Your task to perform on an android device: make emails show in primary in the gmail app Image 0: 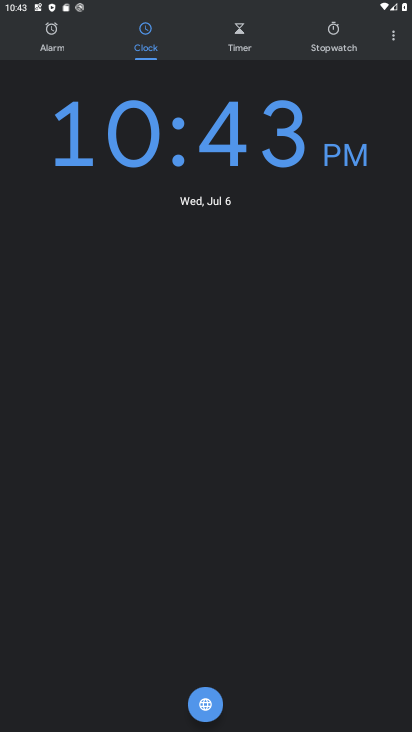
Step 0: press home button
Your task to perform on an android device: make emails show in primary in the gmail app Image 1: 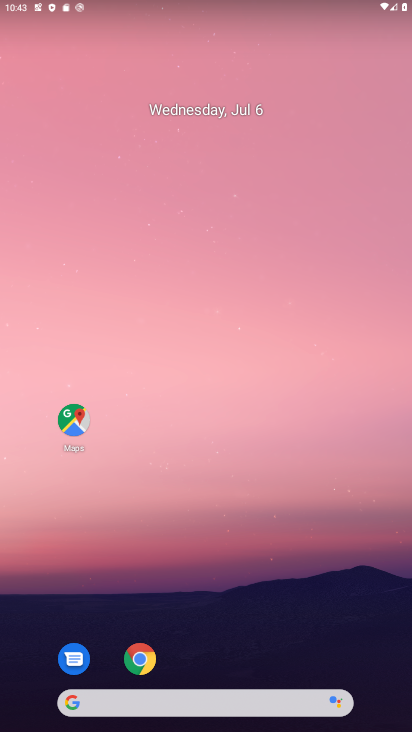
Step 1: drag from (245, 581) to (168, 202)
Your task to perform on an android device: make emails show in primary in the gmail app Image 2: 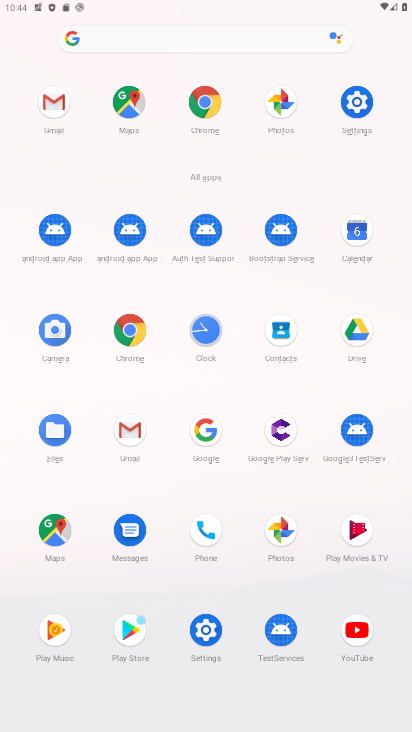
Step 2: click (51, 103)
Your task to perform on an android device: make emails show in primary in the gmail app Image 3: 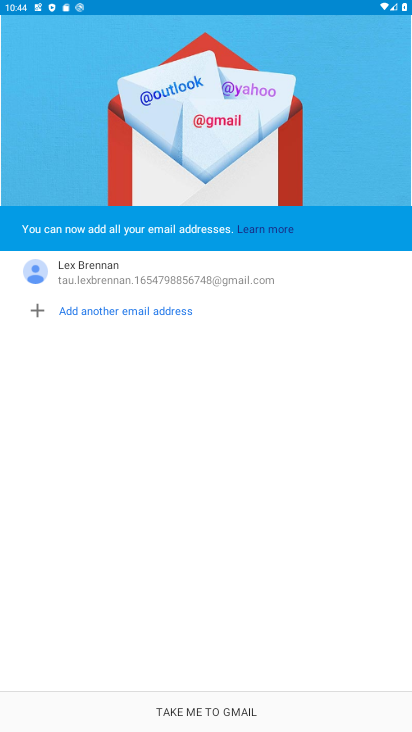
Step 3: click (205, 716)
Your task to perform on an android device: make emails show in primary in the gmail app Image 4: 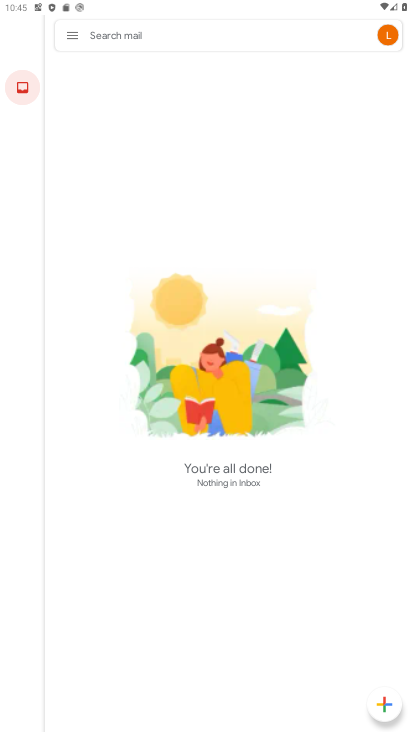
Step 4: click (71, 37)
Your task to perform on an android device: make emails show in primary in the gmail app Image 5: 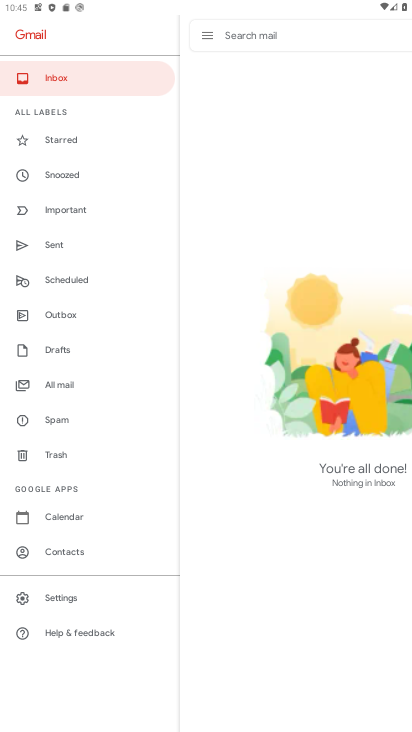
Step 5: click (61, 593)
Your task to perform on an android device: make emails show in primary in the gmail app Image 6: 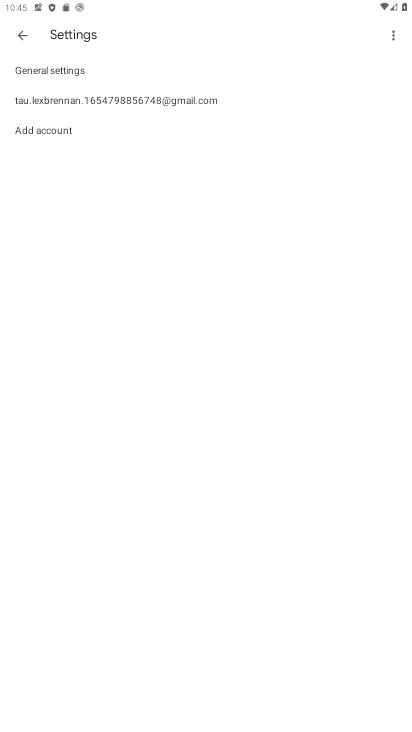
Step 6: click (66, 106)
Your task to perform on an android device: make emails show in primary in the gmail app Image 7: 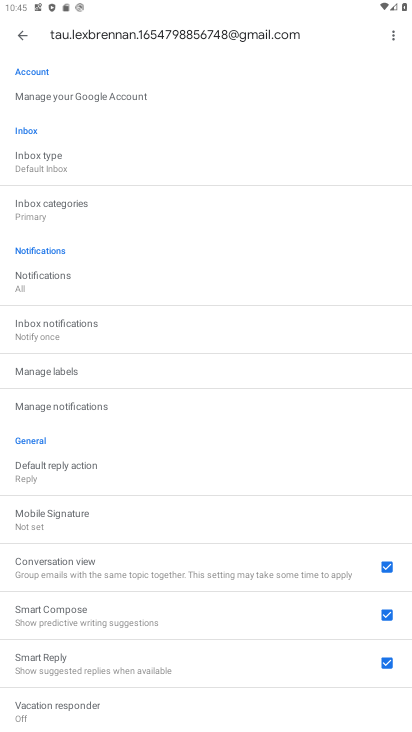
Step 7: click (52, 200)
Your task to perform on an android device: make emails show in primary in the gmail app Image 8: 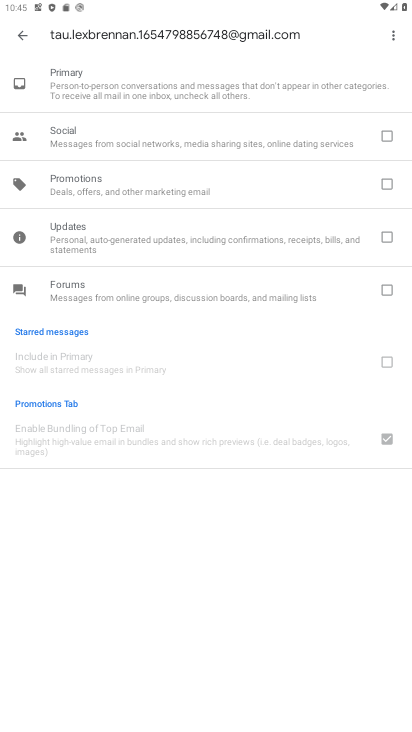
Step 8: click (134, 92)
Your task to perform on an android device: make emails show in primary in the gmail app Image 9: 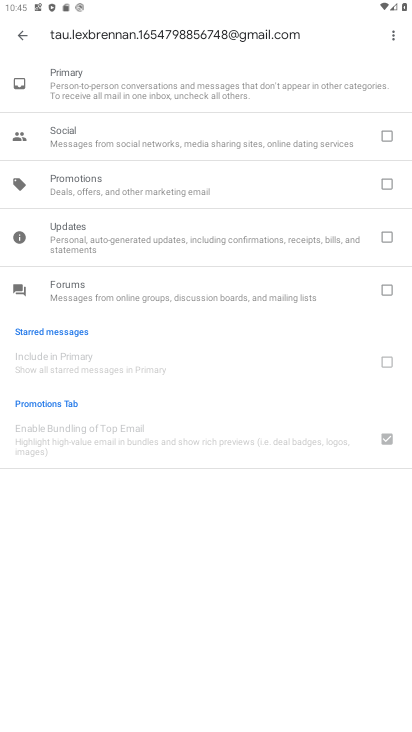
Step 9: task complete